Your task to perform on an android device: Search for a home improvement project you can do. Image 0: 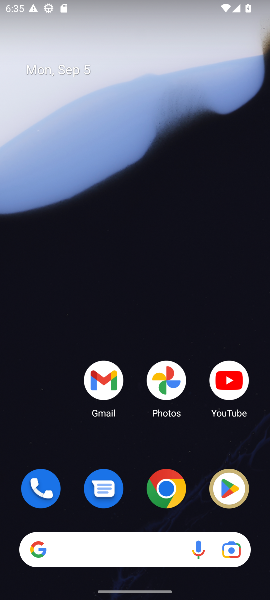
Step 0: click (157, 488)
Your task to perform on an android device: Search for a home improvement project you can do. Image 1: 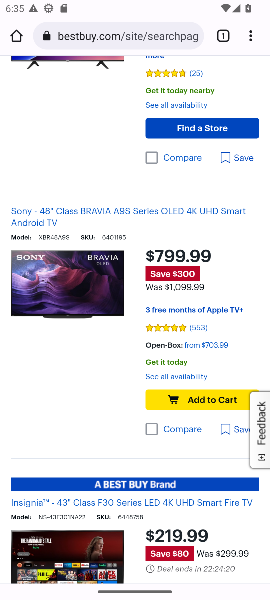
Step 1: click (96, 37)
Your task to perform on an android device: Search for a home improvement project you can do. Image 2: 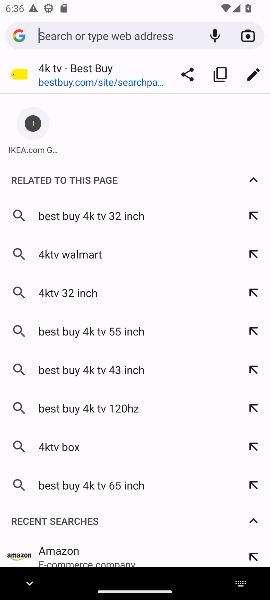
Step 2: type "home improvement project you can do"
Your task to perform on an android device: Search for a home improvement project you can do. Image 3: 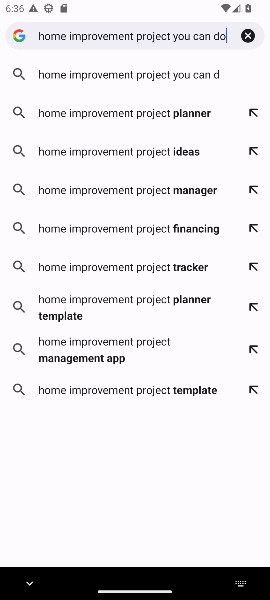
Step 3: press enter
Your task to perform on an android device: Search for a home improvement project you can do. Image 4: 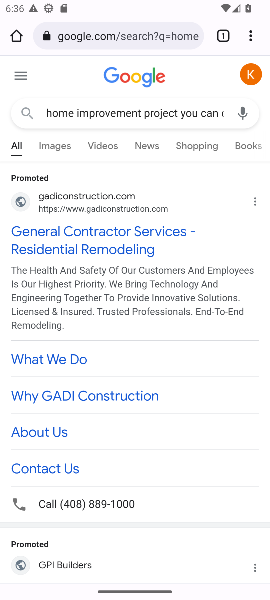
Step 4: drag from (239, 302) to (238, 221)
Your task to perform on an android device: Search for a home improvement project you can do. Image 5: 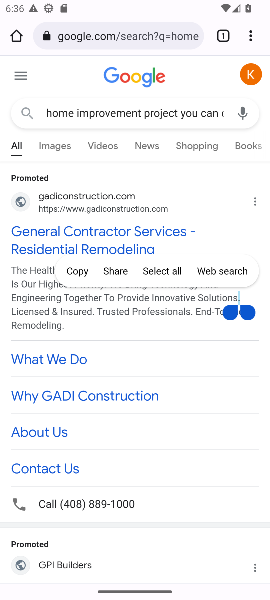
Step 5: click (145, 319)
Your task to perform on an android device: Search for a home improvement project you can do. Image 6: 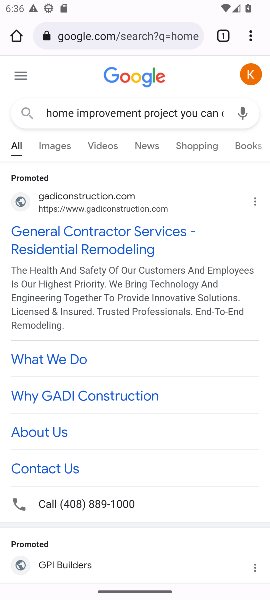
Step 6: task complete